Your task to perform on an android device: change notification settings in the gmail app Image 0: 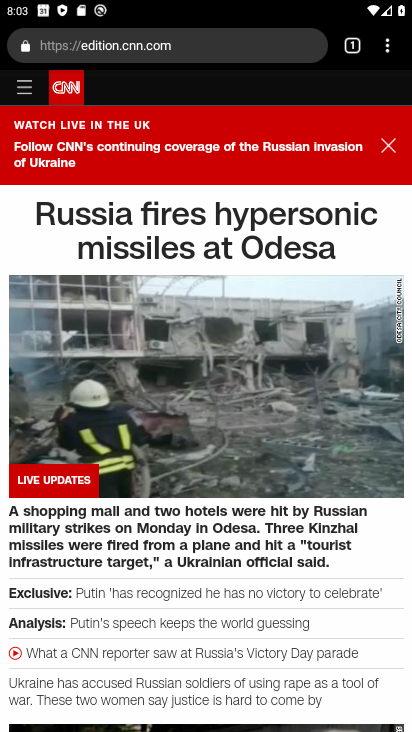
Step 0: press home button
Your task to perform on an android device: change notification settings in the gmail app Image 1: 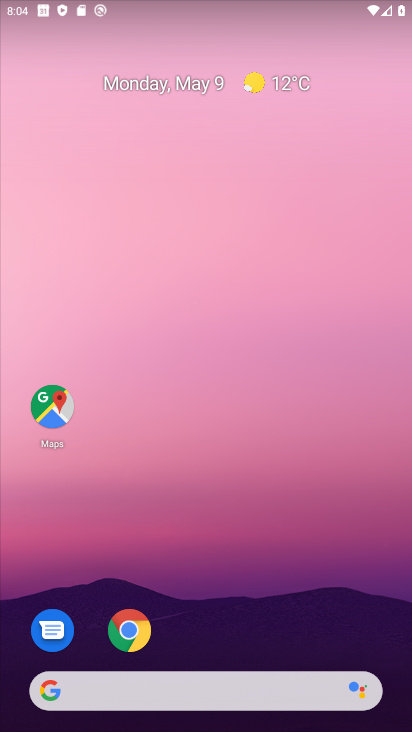
Step 1: drag from (230, 674) to (228, 197)
Your task to perform on an android device: change notification settings in the gmail app Image 2: 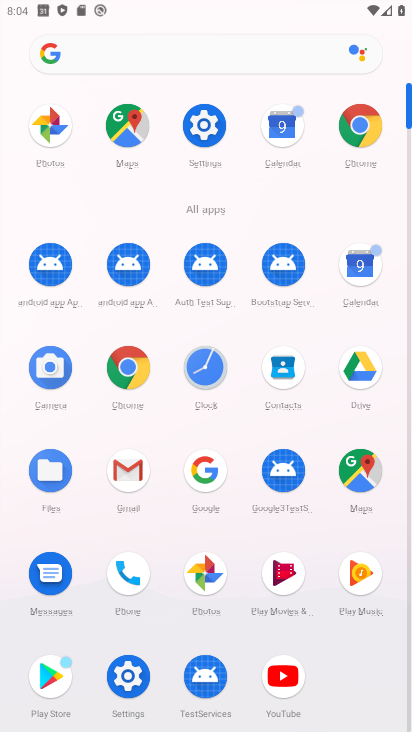
Step 2: click (119, 477)
Your task to perform on an android device: change notification settings in the gmail app Image 3: 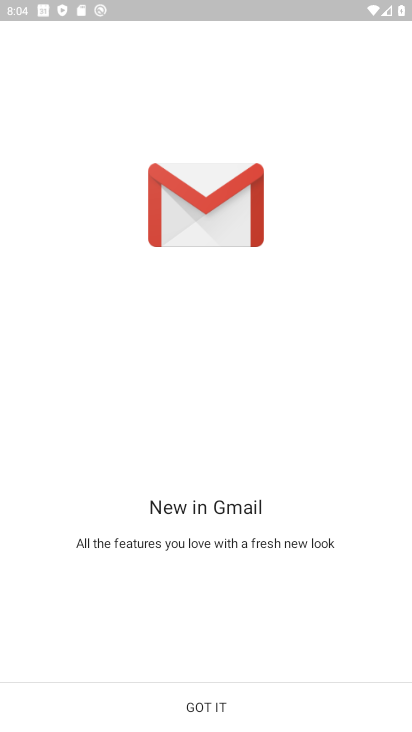
Step 3: click (195, 709)
Your task to perform on an android device: change notification settings in the gmail app Image 4: 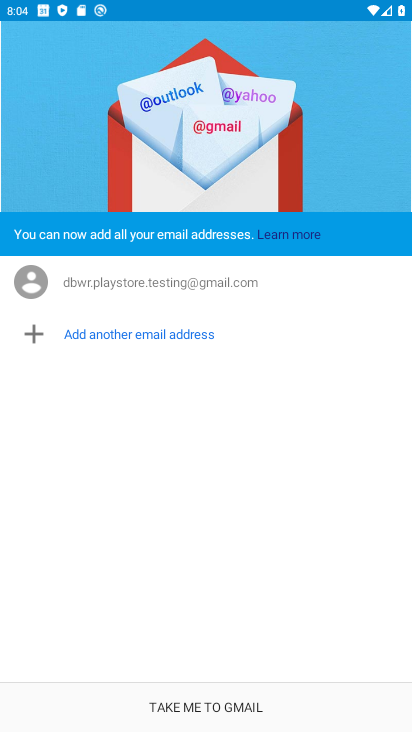
Step 4: click (191, 710)
Your task to perform on an android device: change notification settings in the gmail app Image 5: 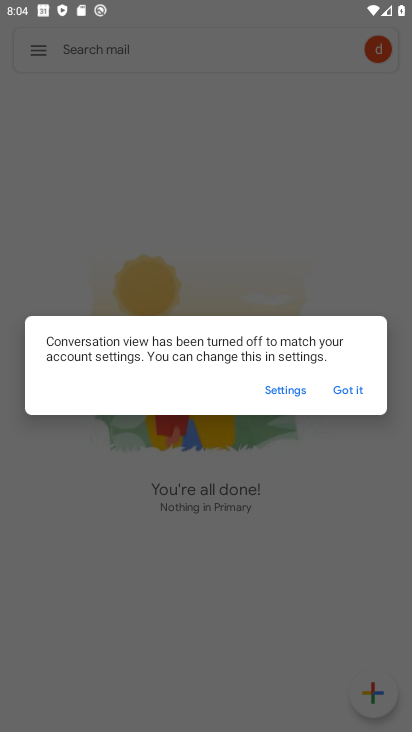
Step 5: click (347, 386)
Your task to perform on an android device: change notification settings in the gmail app Image 6: 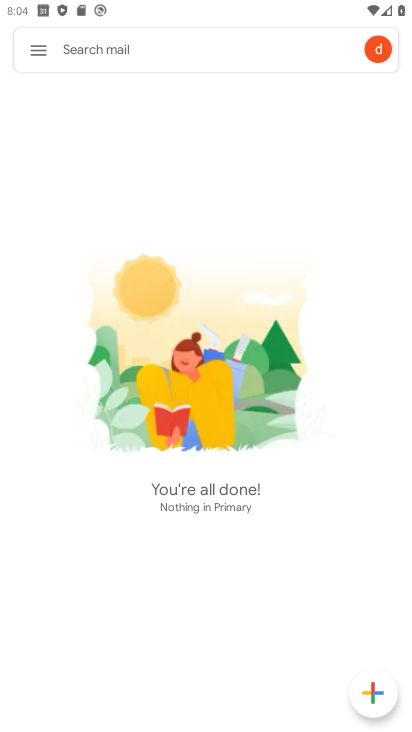
Step 6: click (37, 51)
Your task to perform on an android device: change notification settings in the gmail app Image 7: 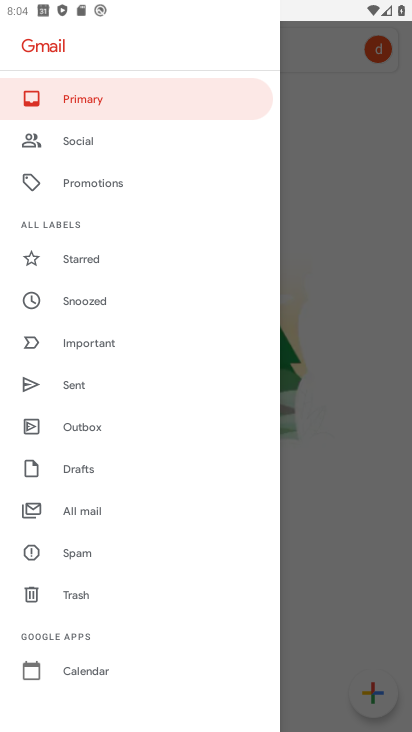
Step 7: drag from (84, 663) to (84, 225)
Your task to perform on an android device: change notification settings in the gmail app Image 8: 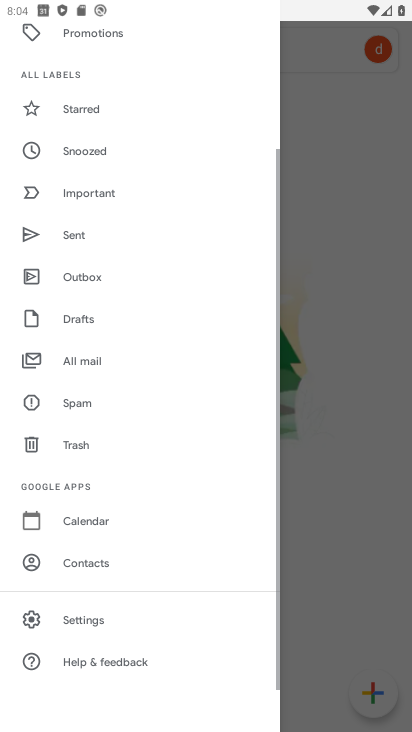
Step 8: click (79, 626)
Your task to perform on an android device: change notification settings in the gmail app Image 9: 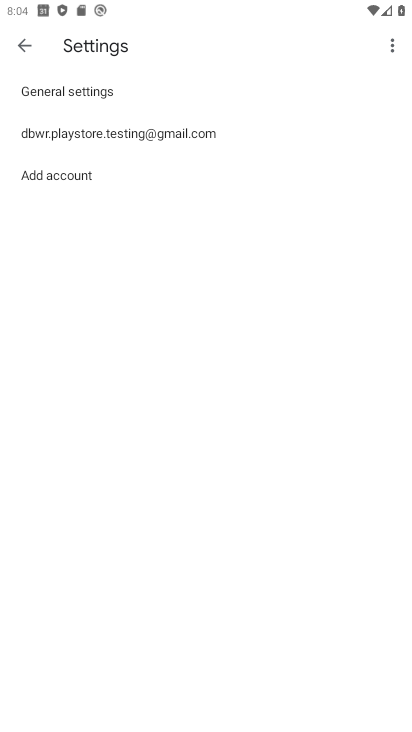
Step 9: click (87, 134)
Your task to perform on an android device: change notification settings in the gmail app Image 10: 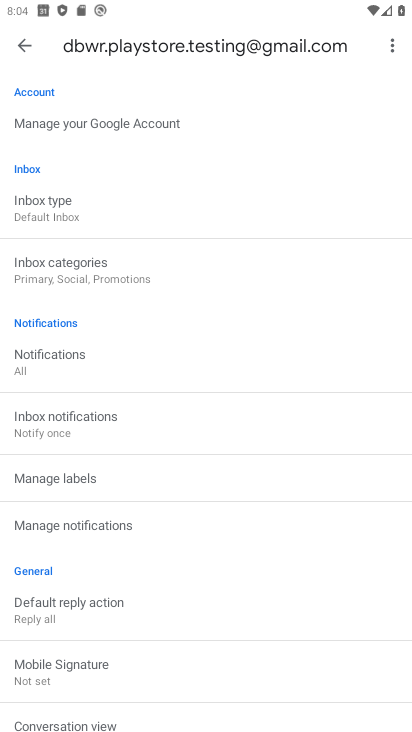
Step 10: click (15, 42)
Your task to perform on an android device: change notification settings in the gmail app Image 11: 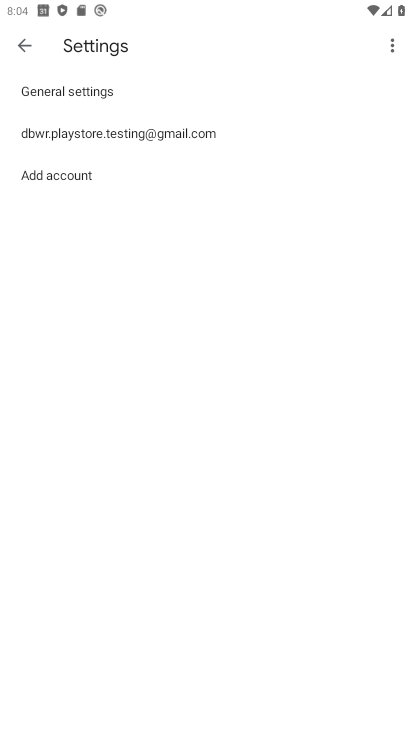
Step 11: click (73, 93)
Your task to perform on an android device: change notification settings in the gmail app Image 12: 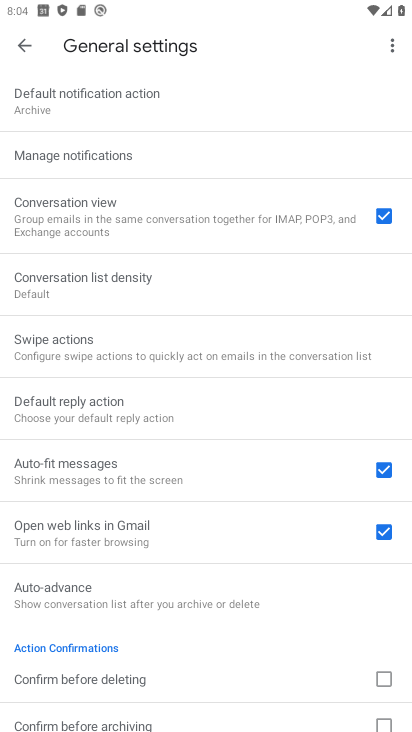
Step 12: click (67, 146)
Your task to perform on an android device: change notification settings in the gmail app Image 13: 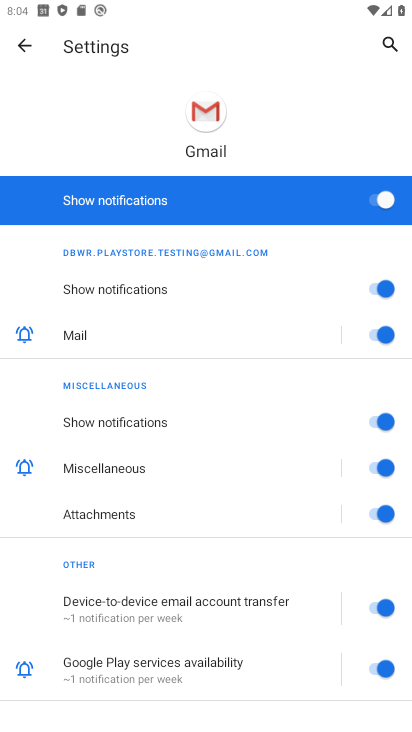
Step 13: click (375, 200)
Your task to perform on an android device: change notification settings in the gmail app Image 14: 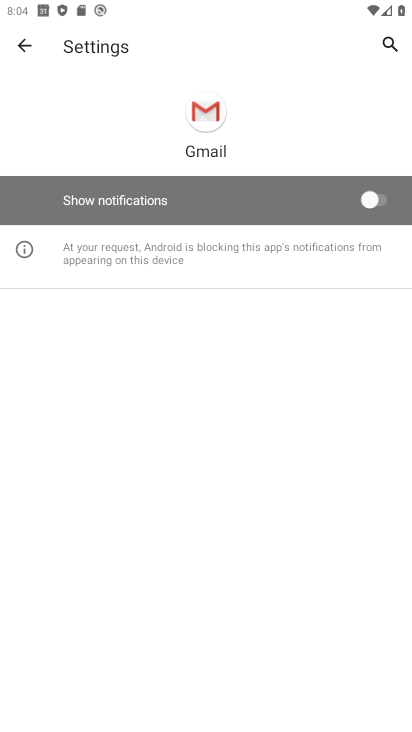
Step 14: task complete